Your task to perform on an android device: What's the weather? Image 0: 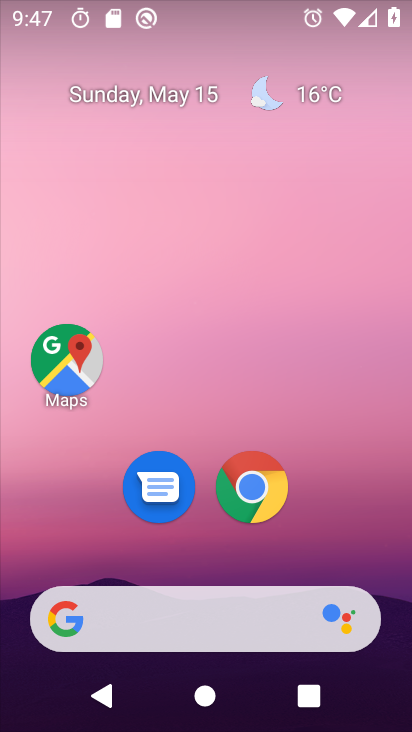
Step 0: drag from (350, 506) to (325, 114)
Your task to perform on an android device: What's the weather? Image 1: 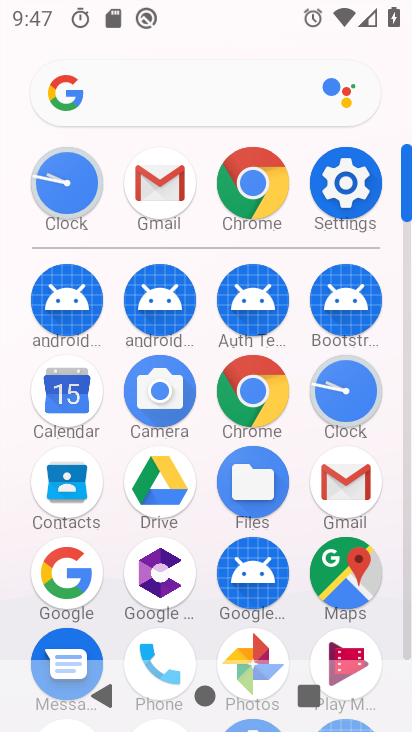
Step 1: click (247, 170)
Your task to perform on an android device: What's the weather? Image 2: 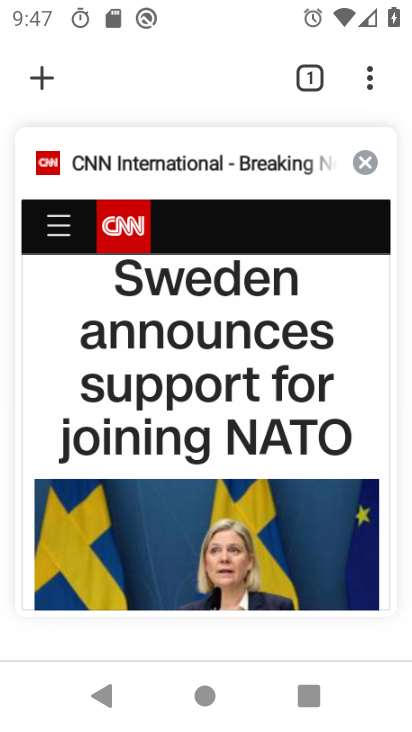
Step 2: click (47, 89)
Your task to perform on an android device: What's the weather? Image 3: 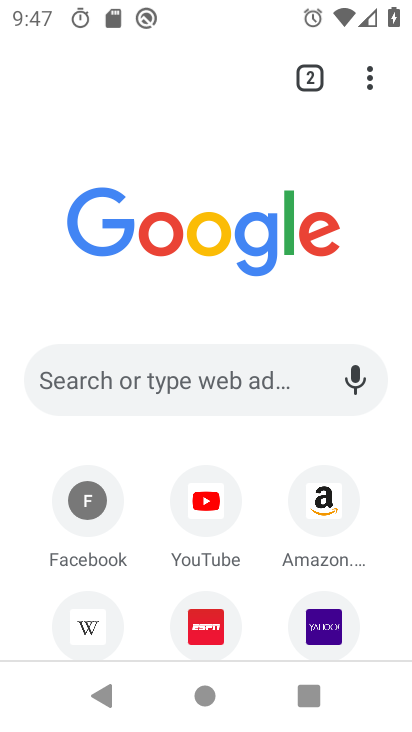
Step 3: click (198, 390)
Your task to perform on an android device: What's the weather? Image 4: 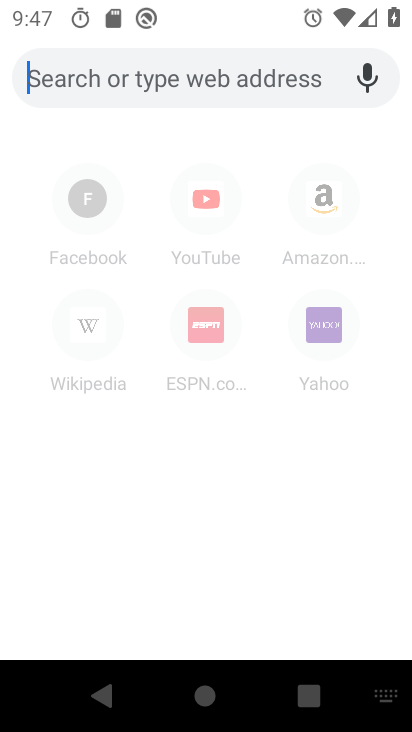
Step 4: type "what's the weather"
Your task to perform on an android device: What's the weather? Image 5: 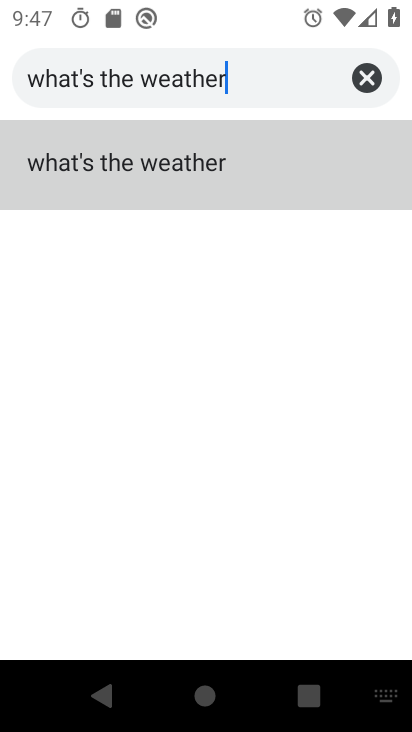
Step 5: click (118, 141)
Your task to perform on an android device: What's the weather? Image 6: 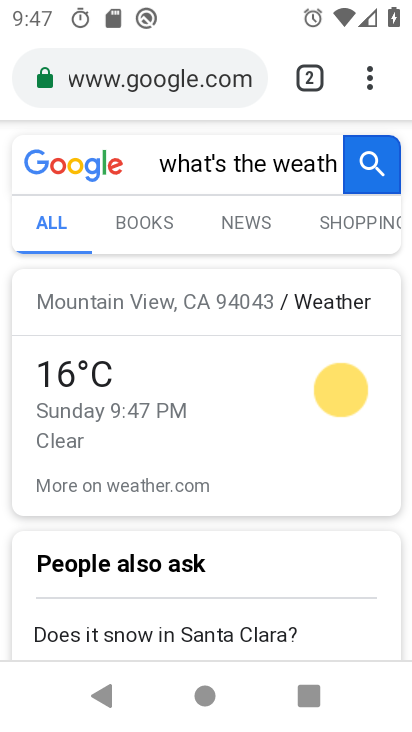
Step 6: task complete